Your task to perform on an android device: Open maps Image 0: 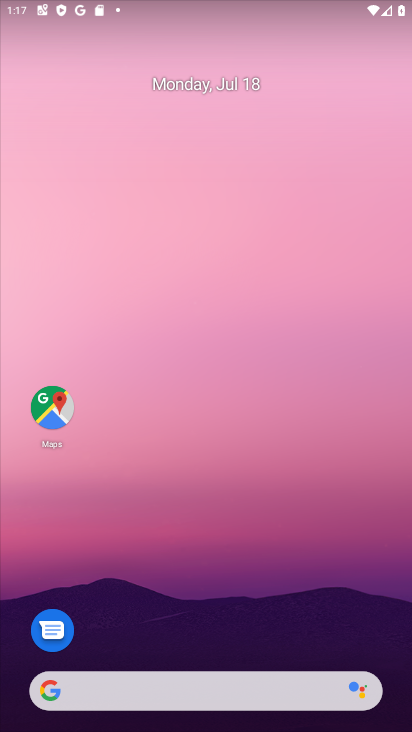
Step 0: drag from (292, 694) to (309, 89)
Your task to perform on an android device: Open maps Image 1: 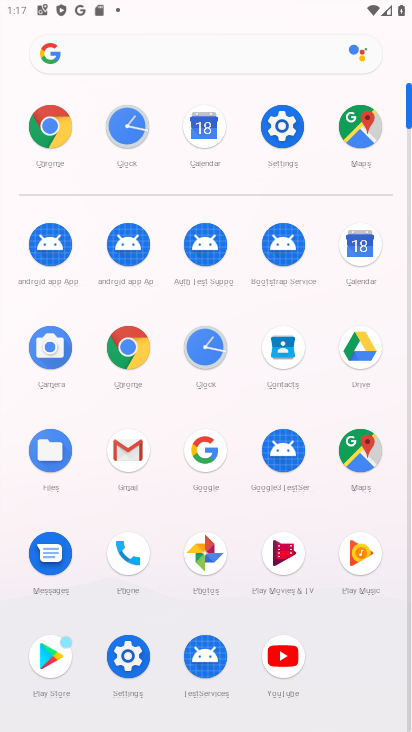
Step 1: click (376, 447)
Your task to perform on an android device: Open maps Image 2: 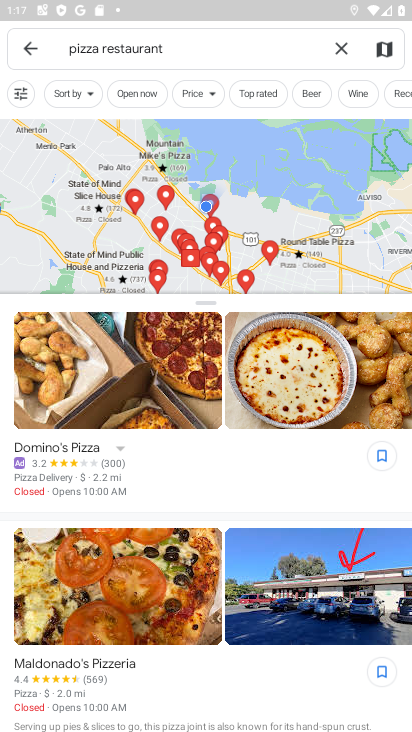
Step 2: task complete